Your task to perform on an android device: Do I have any events tomorrow? Image 0: 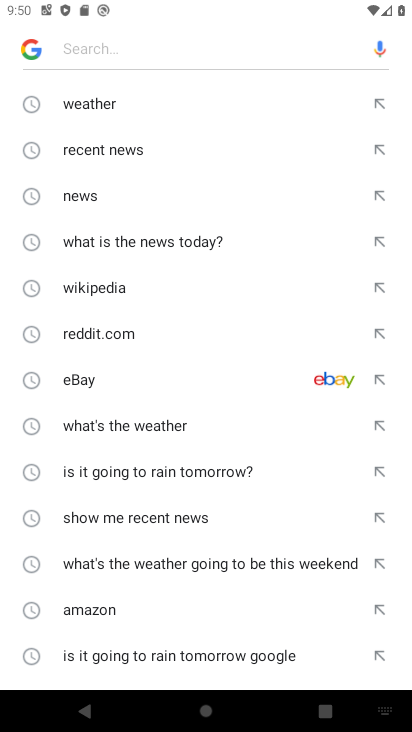
Step 0: press home button
Your task to perform on an android device: Do I have any events tomorrow? Image 1: 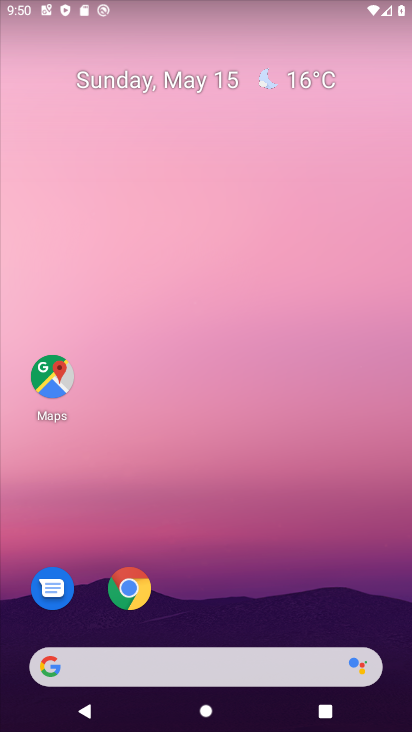
Step 1: drag from (192, 596) to (230, 3)
Your task to perform on an android device: Do I have any events tomorrow? Image 2: 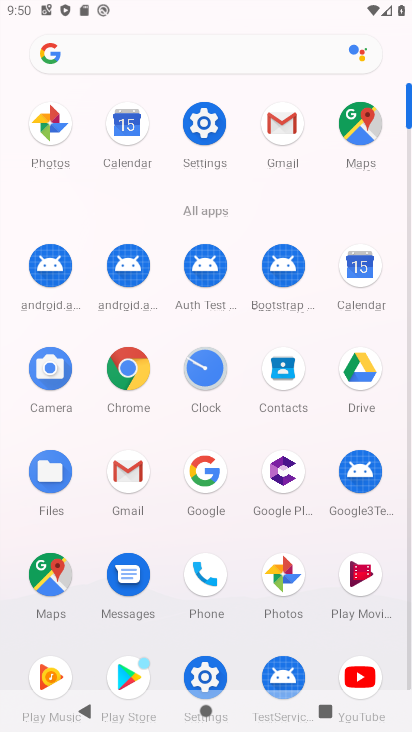
Step 2: click (360, 284)
Your task to perform on an android device: Do I have any events tomorrow? Image 3: 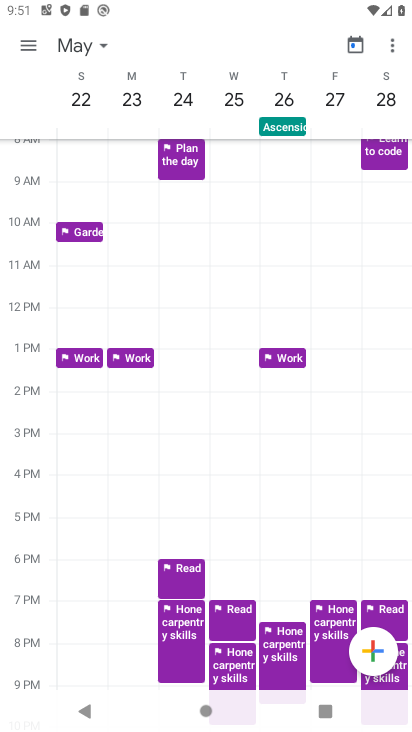
Step 3: click (95, 45)
Your task to perform on an android device: Do I have any events tomorrow? Image 4: 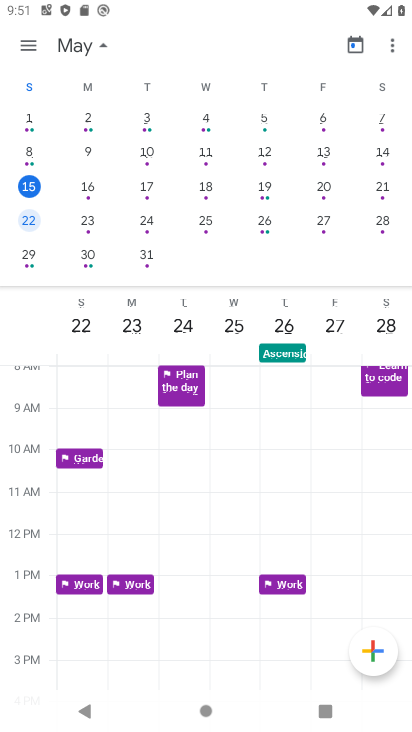
Step 4: click (146, 190)
Your task to perform on an android device: Do I have any events tomorrow? Image 5: 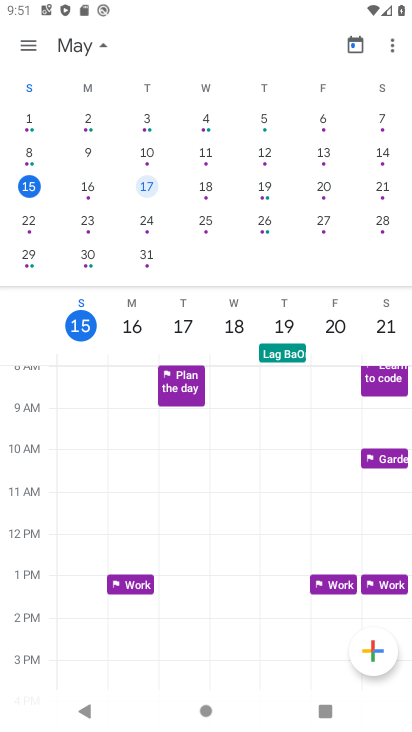
Step 5: click (146, 190)
Your task to perform on an android device: Do I have any events tomorrow? Image 6: 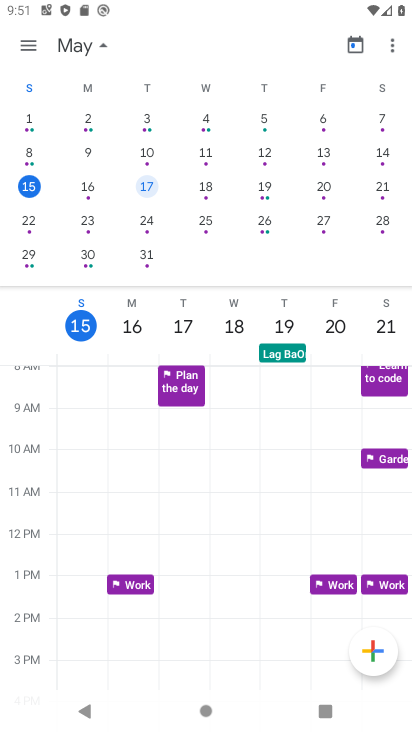
Step 6: click (146, 190)
Your task to perform on an android device: Do I have any events tomorrow? Image 7: 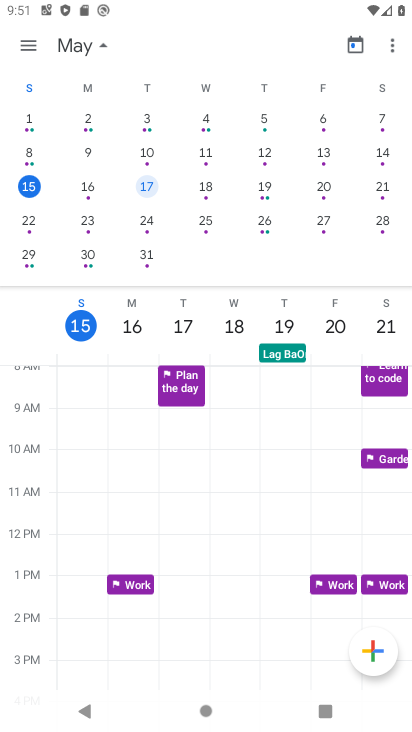
Step 7: task complete